Your task to perform on an android device: turn off picture-in-picture Image 0: 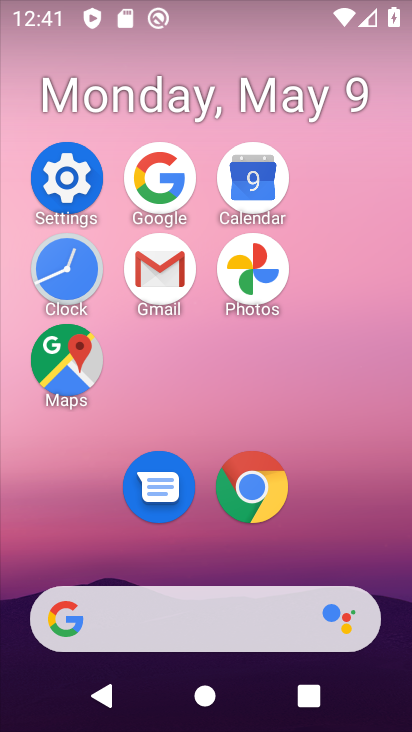
Step 0: click (258, 488)
Your task to perform on an android device: turn off picture-in-picture Image 1: 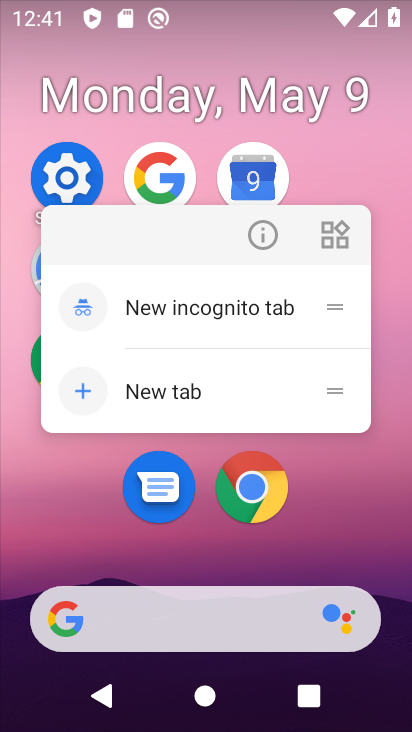
Step 1: click (265, 242)
Your task to perform on an android device: turn off picture-in-picture Image 2: 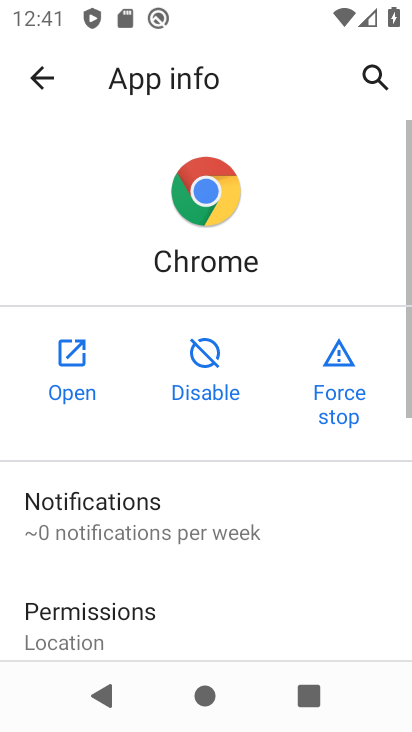
Step 2: drag from (270, 558) to (246, 187)
Your task to perform on an android device: turn off picture-in-picture Image 3: 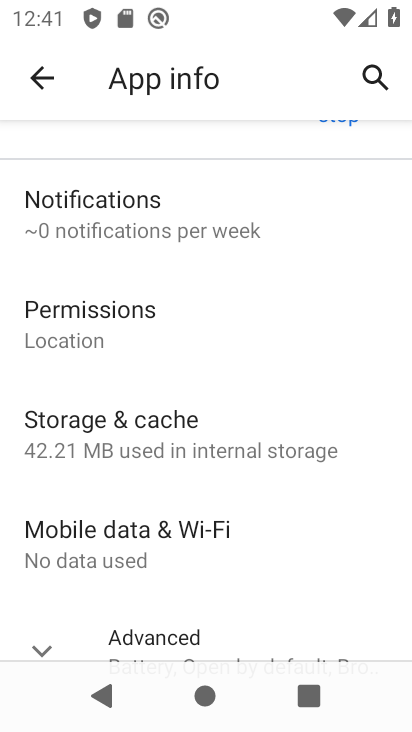
Step 3: drag from (259, 569) to (283, 228)
Your task to perform on an android device: turn off picture-in-picture Image 4: 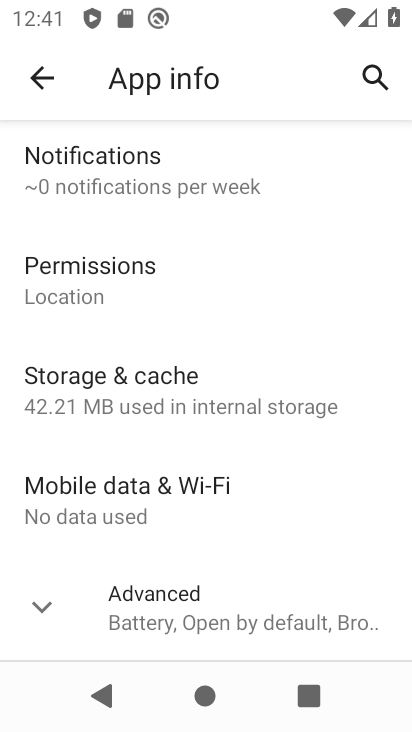
Step 4: click (226, 602)
Your task to perform on an android device: turn off picture-in-picture Image 5: 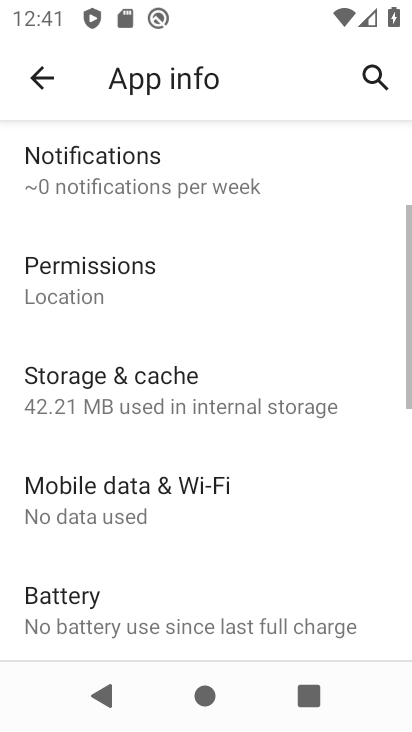
Step 5: drag from (226, 602) to (237, 191)
Your task to perform on an android device: turn off picture-in-picture Image 6: 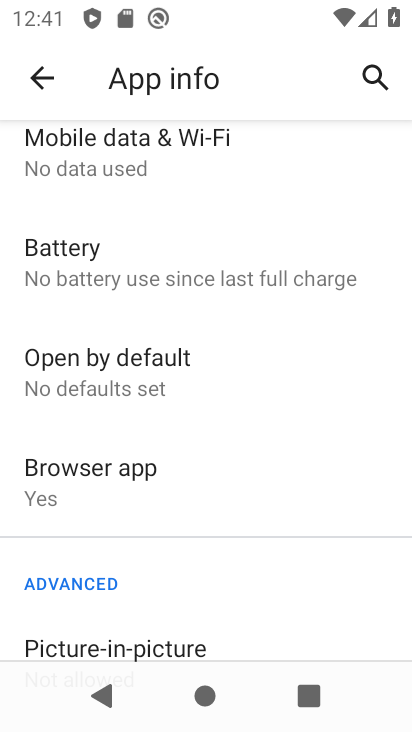
Step 6: drag from (218, 580) to (234, 279)
Your task to perform on an android device: turn off picture-in-picture Image 7: 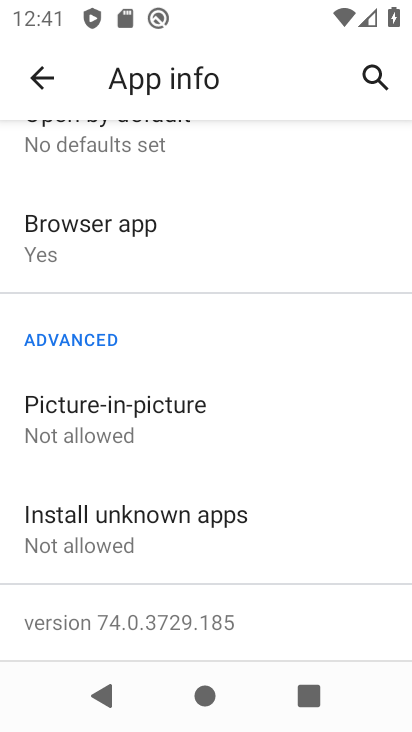
Step 7: click (178, 404)
Your task to perform on an android device: turn off picture-in-picture Image 8: 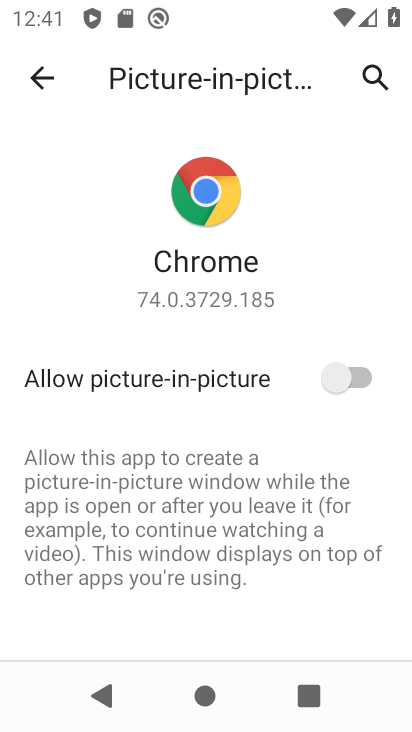
Step 8: task complete